Your task to perform on an android device: check out phone information Image 0: 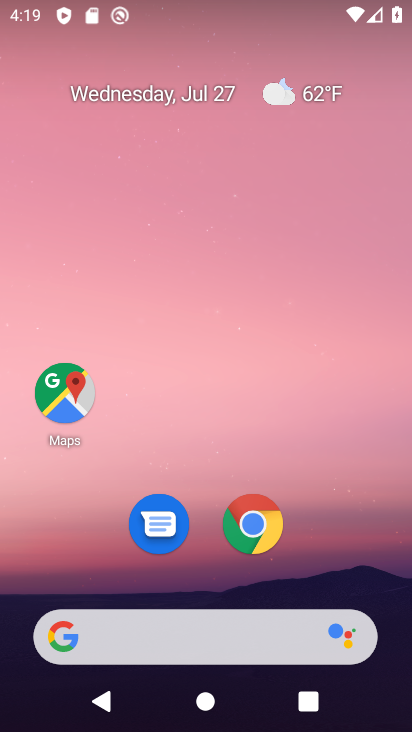
Step 0: drag from (206, 468) to (272, 88)
Your task to perform on an android device: check out phone information Image 1: 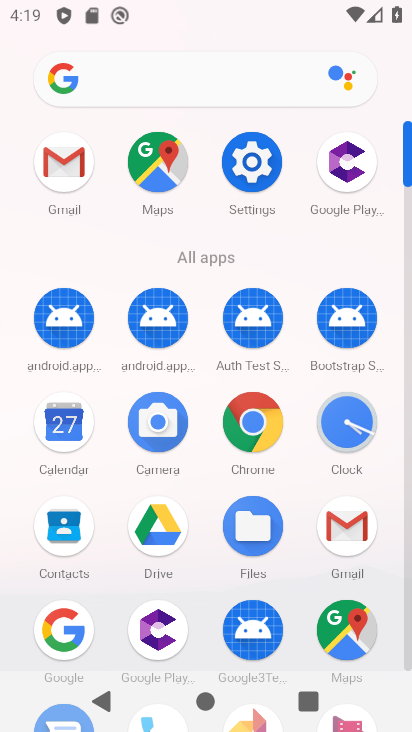
Step 1: drag from (195, 447) to (222, 155)
Your task to perform on an android device: check out phone information Image 2: 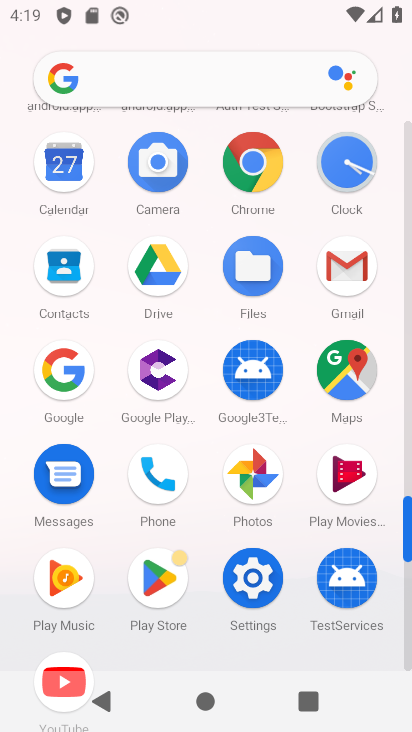
Step 2: click (153, 475)
Your task to perform on an android device: check out phone information Image 3: 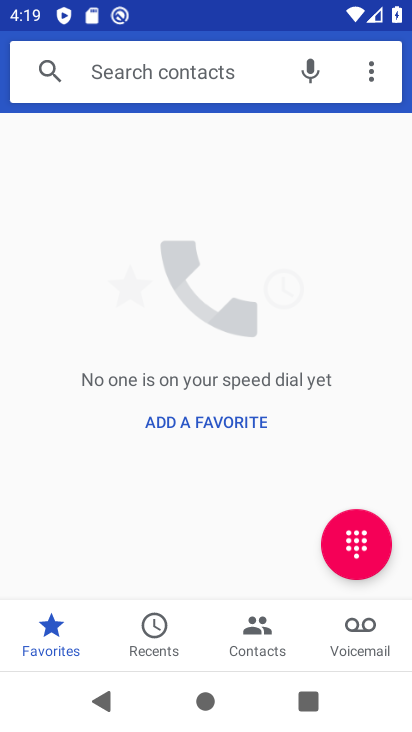
Step 3: click (373, 75)
Your task to perform on an android device: check out phone information Image 4: 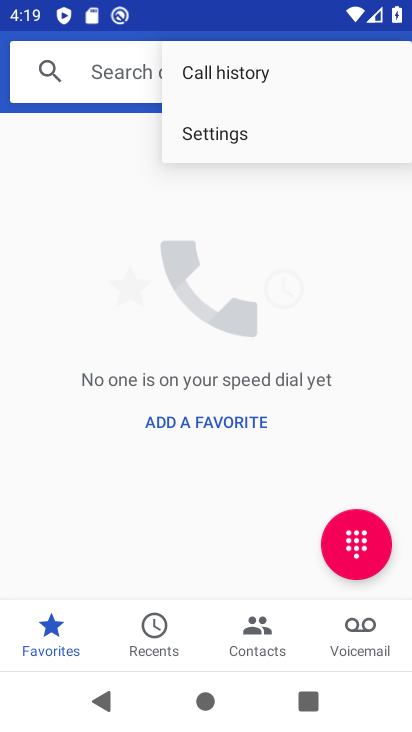
Step 4: click (237, 123)
Your task to perform on an android device: check out phone information Image 5: 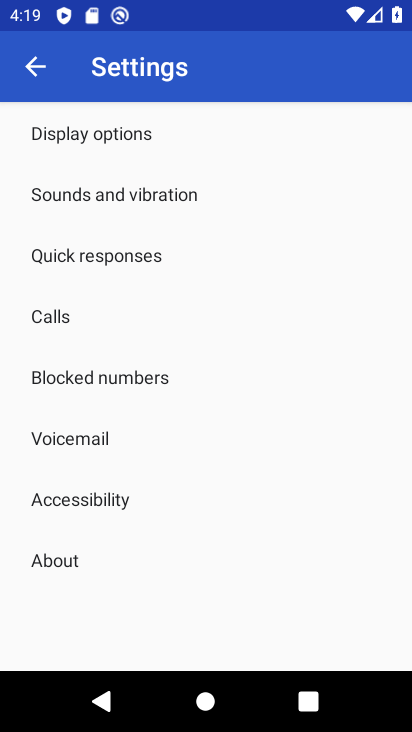
Step 5: click (69, 562)
Your task to perform on an android device: check out phone information Image 6: 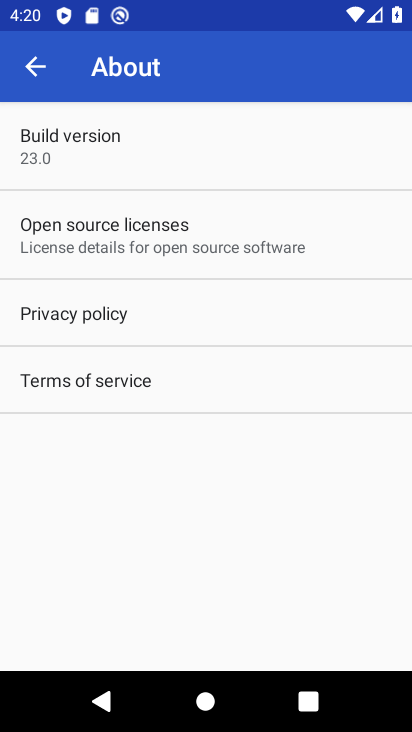
Step 6: task complete